Your task to perform on an android device: When is my next appointment? Image 0: 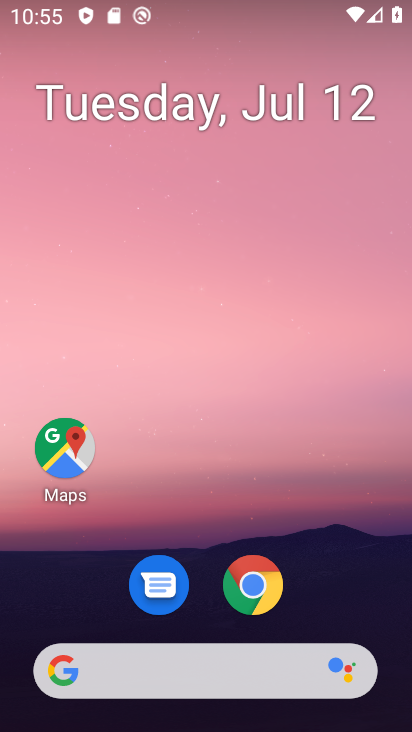
Step 0: drag from (318, 597) to (343, 53)
Your task to perform on an android device: When is my next appointment? Image 1: 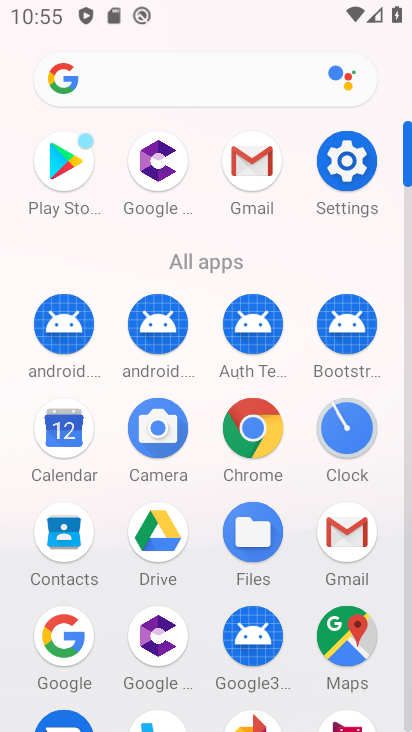
Step 1: click (71, 429)
Your task to perform on an android device: When is my next appointment? Image 2: 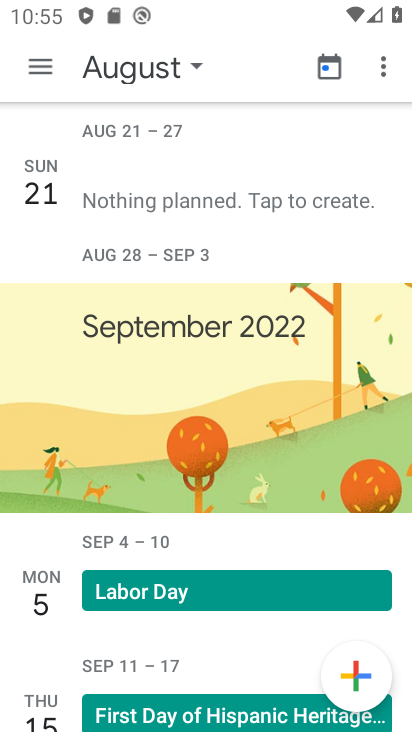
Step 2: click (42, 62)
Your task to perform on an android device: When is my next appointment? Image 3: 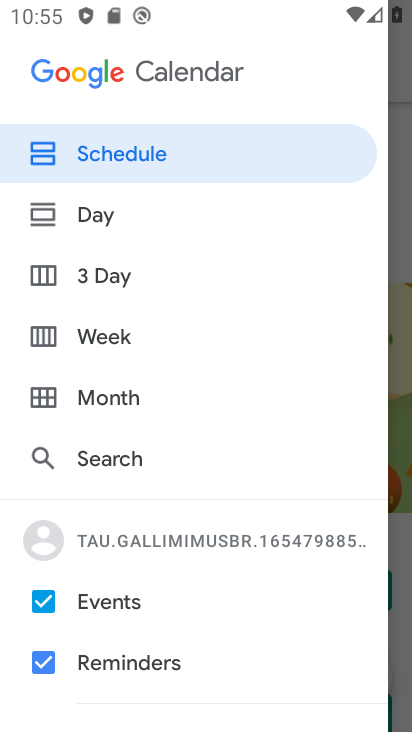
Step 3: click (87, 151)
Your task to perform on an android device: When is my next appointment? Image 4: 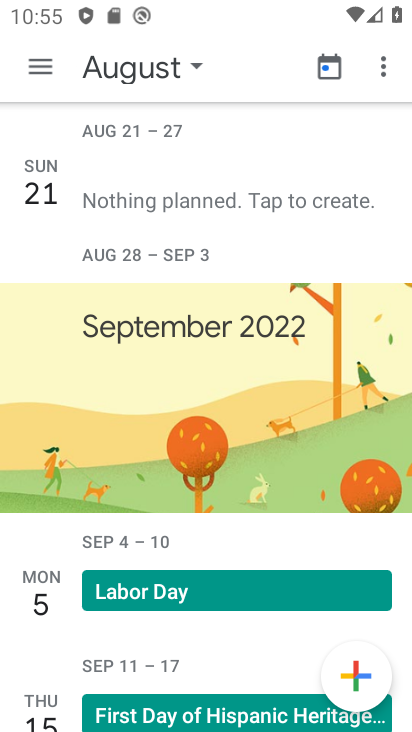
Step 4: click (38, 65)
Your task to perform on an android device: When is my next appointment? Image 5: 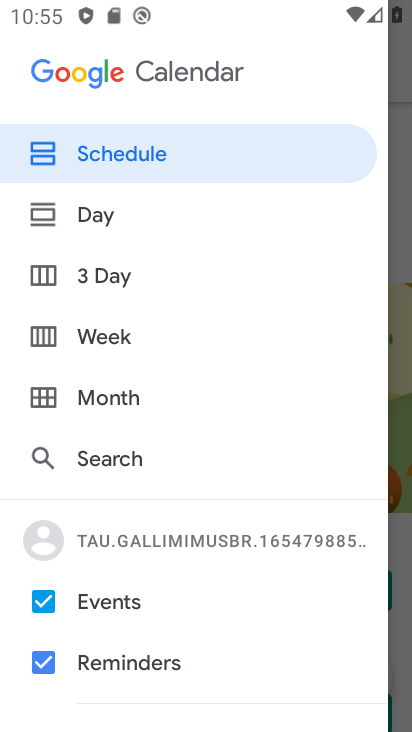
Step 5: click (97, 391)
Your task to perform on an android device: When is my next appointment? Image 6: 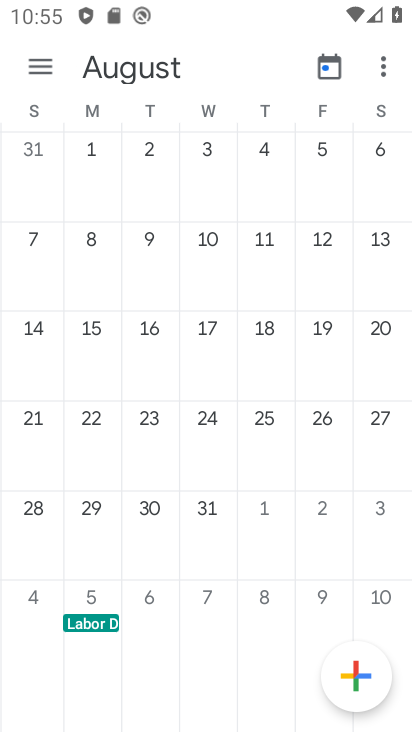
Step 6: drag from (62, 382) to (403, 341)
Your task to perform on an android device: When is my next appointment? Image 7: 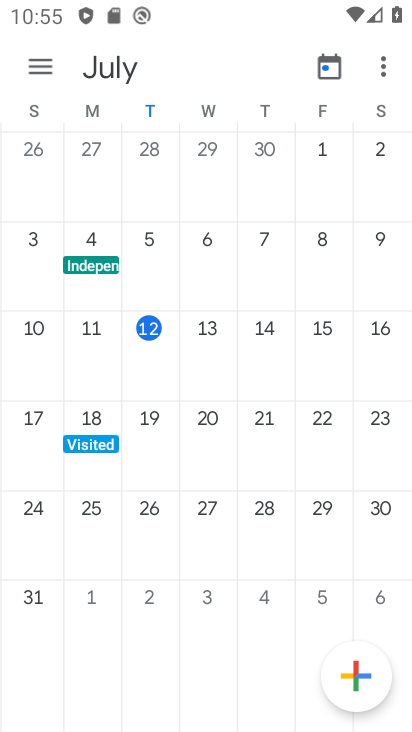
Step 7: click (148, 319)
Your task to perform on an android device: When is my next appointment? Image 8: 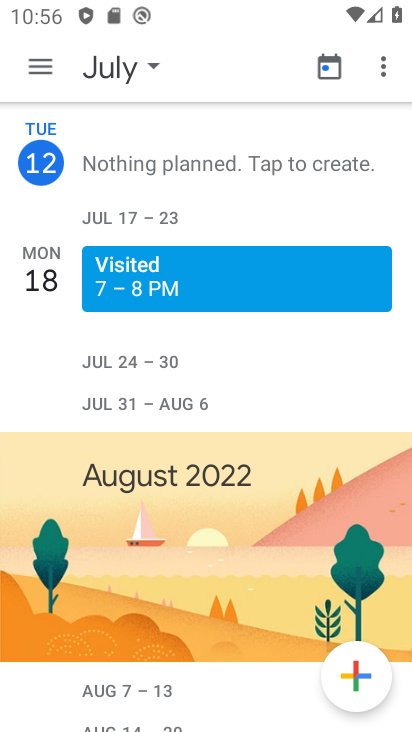
Step 8: task complete